Your task to perform on an android device: delete browsing data in the chrome app Image 0: 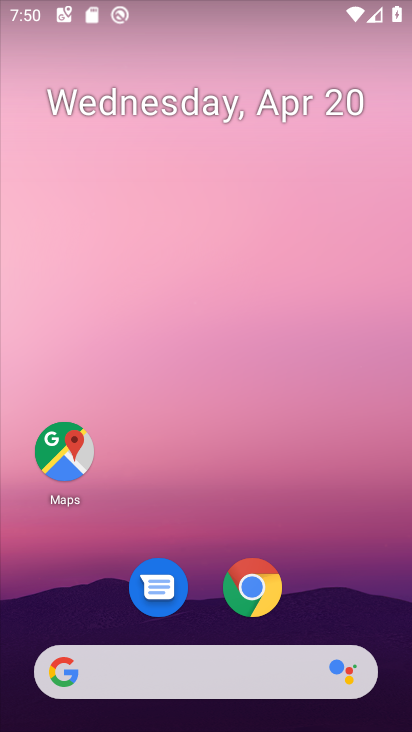
Step 0: click (253, 587)
Your task to perform on an android device: delete browsing data in the chrome app Image 1: 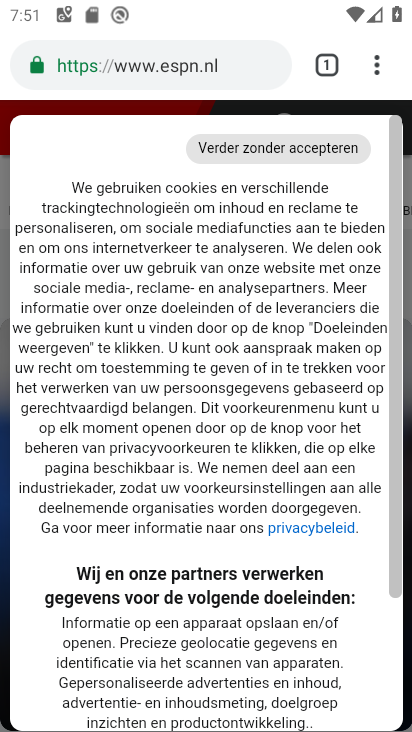
Step 1: click (364, 82)
Your task to perform on an android device: delete browsing data in the chrome app Image 2: 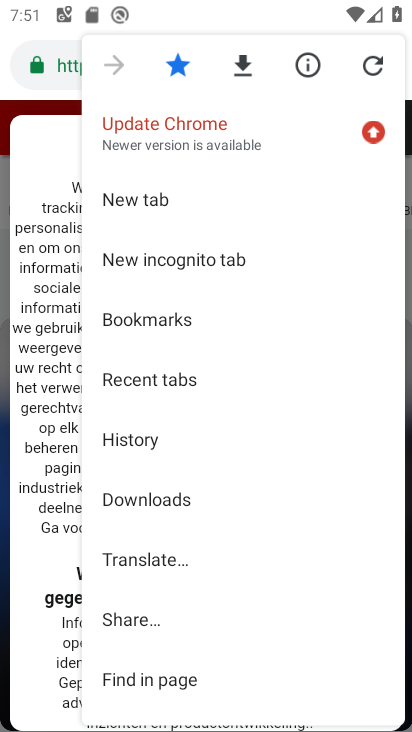
Step 2: click (144, 438)
Your task to perform on an android device: delete browsing data in the chrome app Image 3: 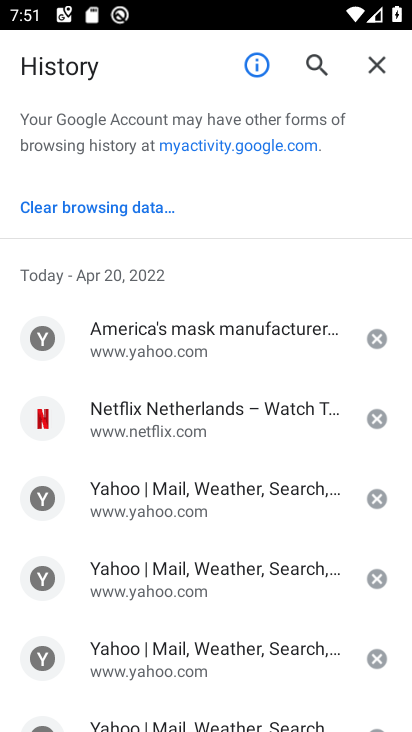
Step 3: click (91, 200)
Your task to perform on an android device: delete browsing data in the chrome app Image 4: 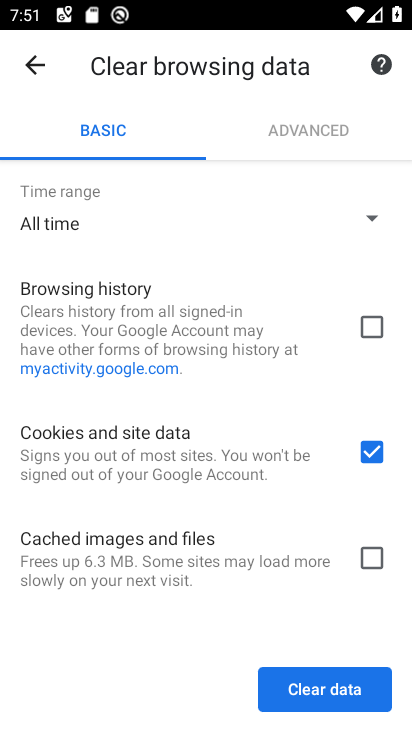
Step 4: click (272, 289)
Your task to perform on an android device: delete browsing data in the chrome app Image 5: 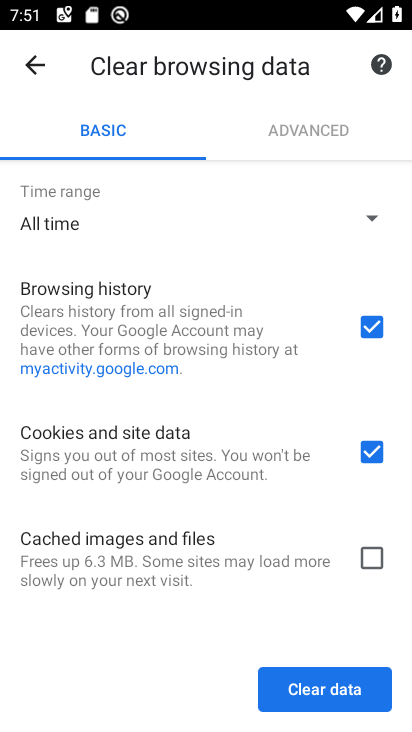
Step 5: click (351, 548)
Your task to perform on an android device: delete browsing data in the chrome app Image 6: 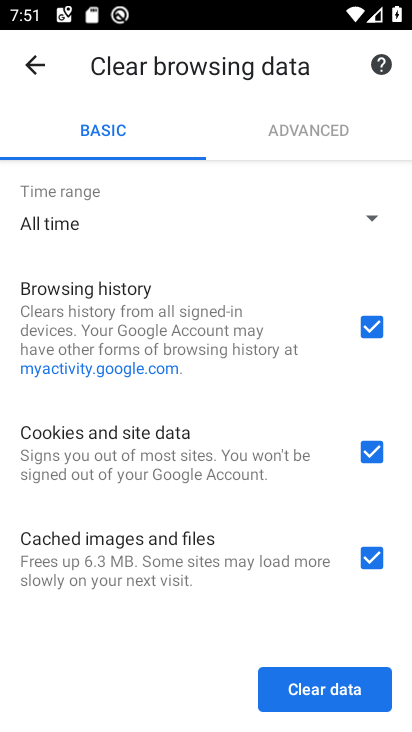
Step 6: click (354, 700)
Your task to perform on an android device: delete browsing data in the chrome app Image 7: 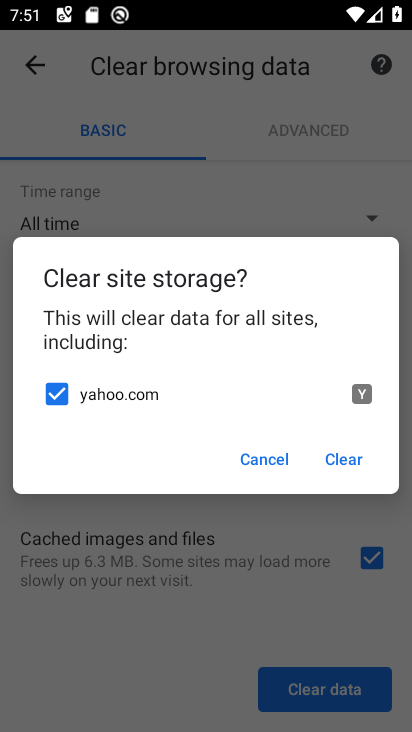
Step 7: click (345, 465)
Your task to perform on an android device: delete browsing data in the chrome app Image 8: 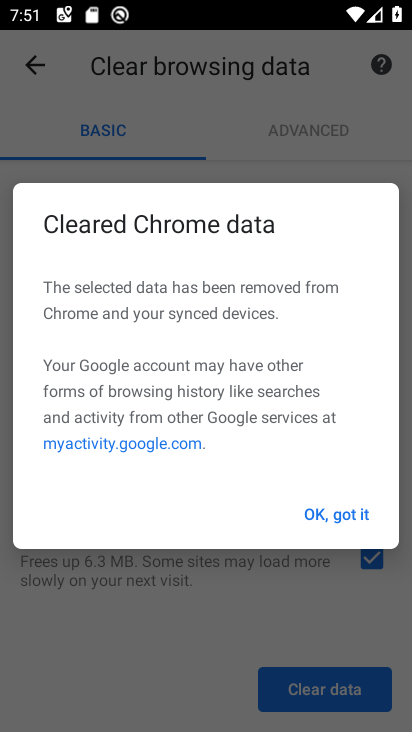
Step 8: click (354, 508)
Your task to perform on an android device: delete browsing data in the chrome app Image 9: 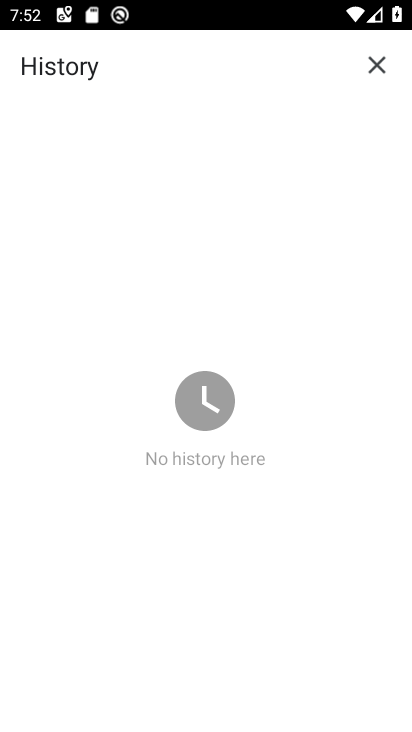
Step 9: task complete